Your task to perform on an android device: Open battery settings Image 0: 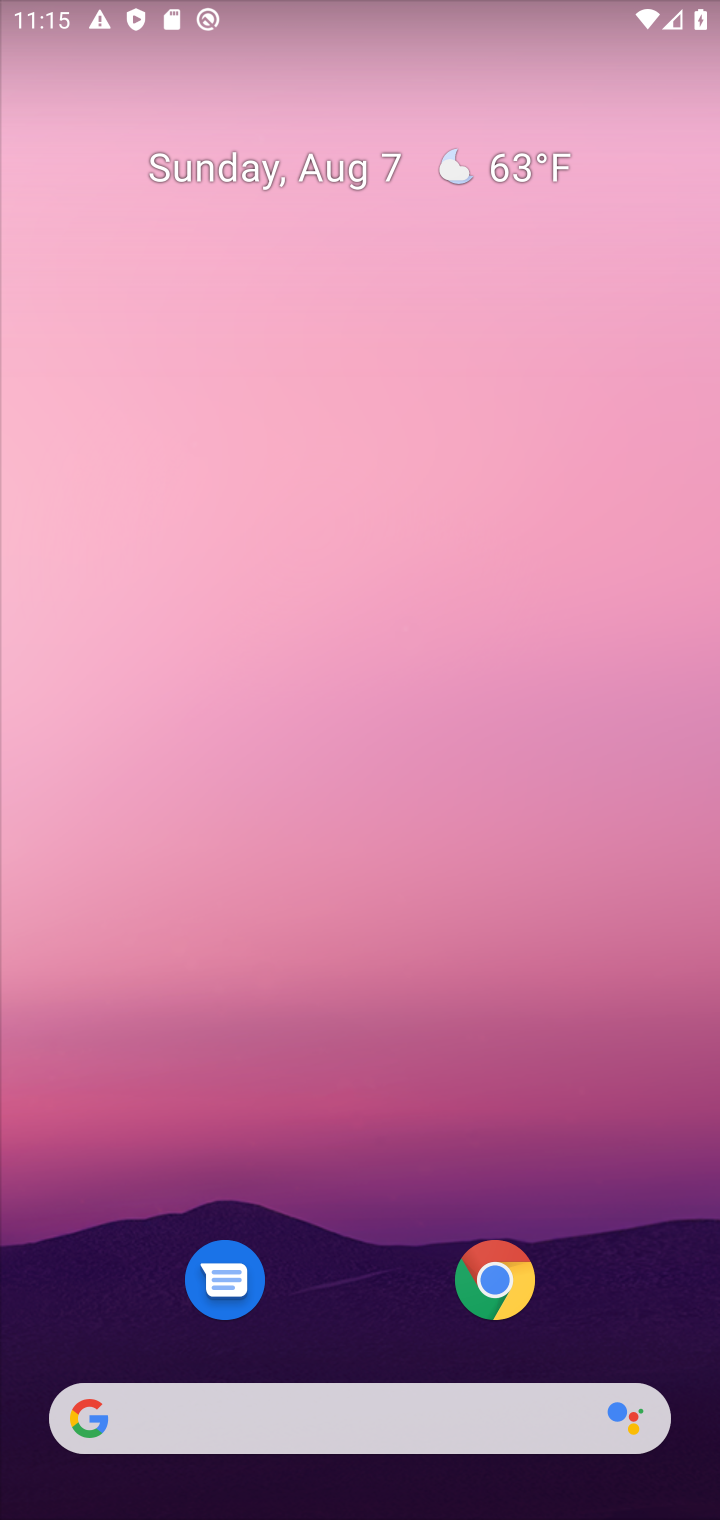
Step 0: drag from (345, 1006) to (307, 171)
Your task to perform on an android device: Open battery settings Image 1: 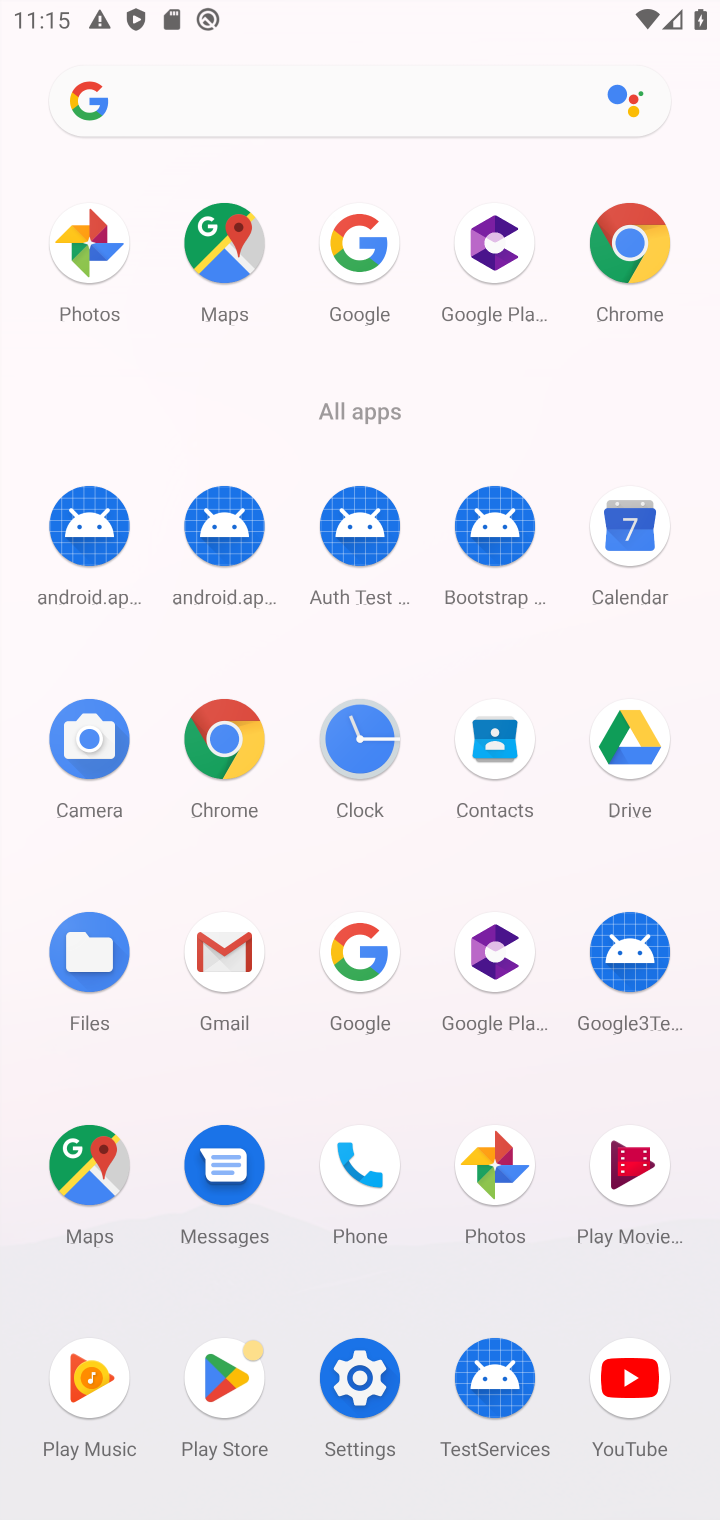
Step 1: click (364, 1364)
Your task to perform on an android device: Open battery settings Image 2: 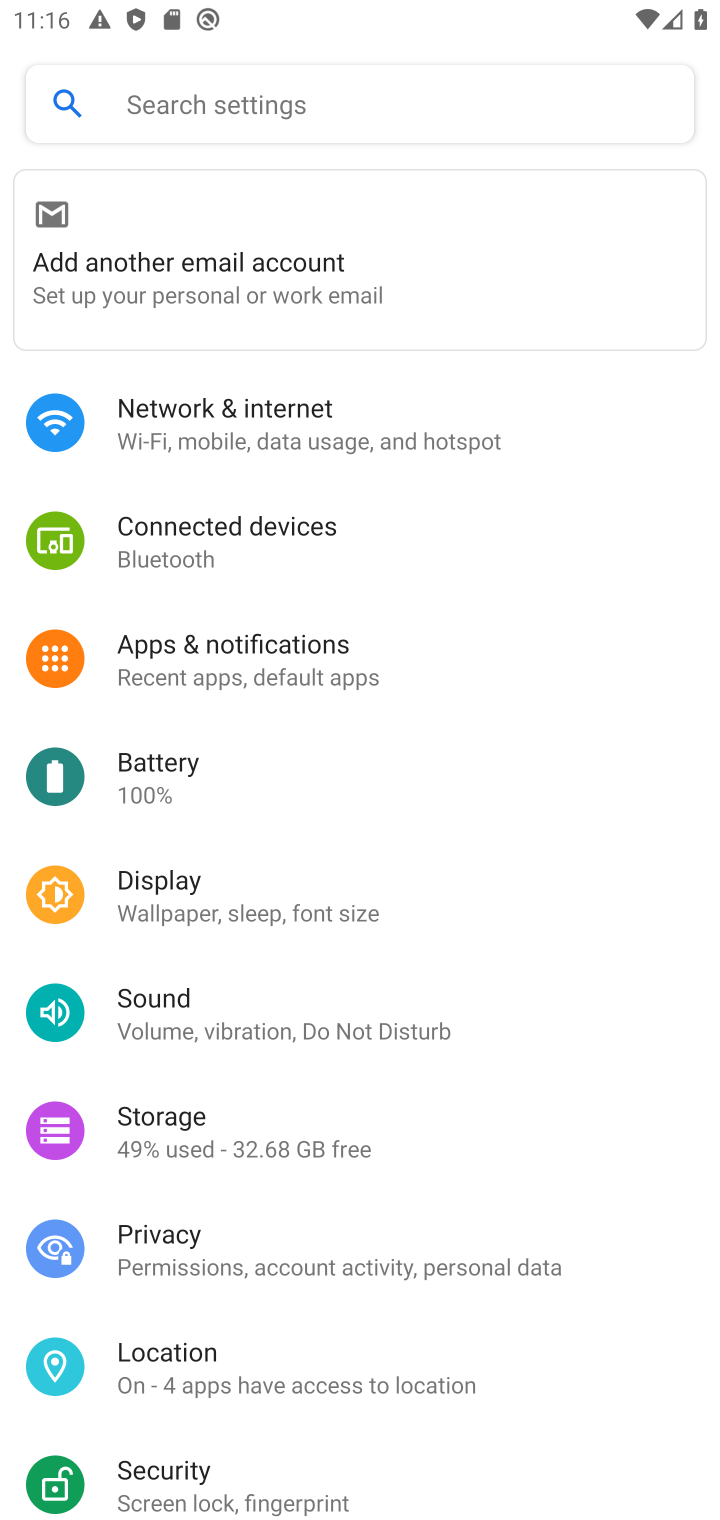
Step 2: click (143, 770)
Your task to perform on an android device: Open battery settings Image 3: 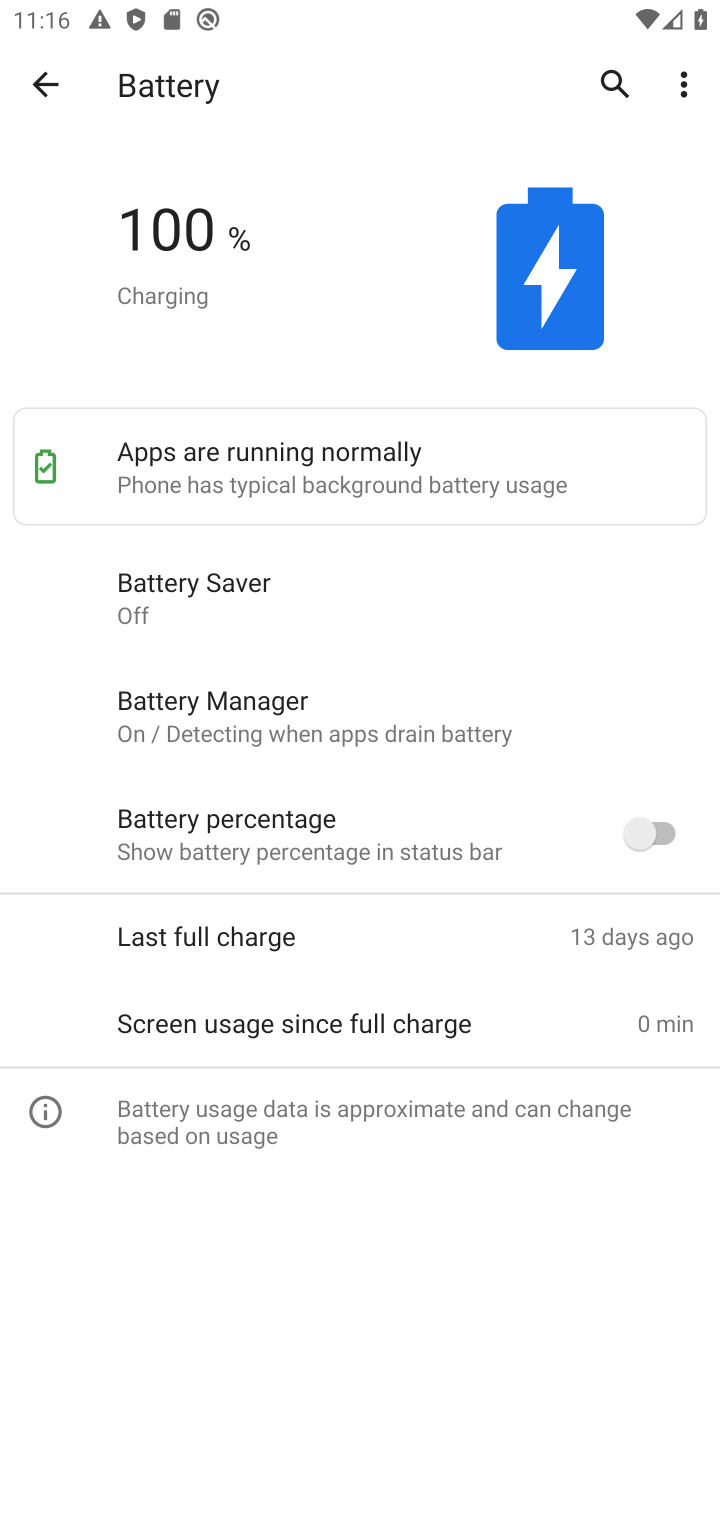
Step 3: task complete